Your task to perform on an android device: Open Youtube and go to "Your channel" Image 0: 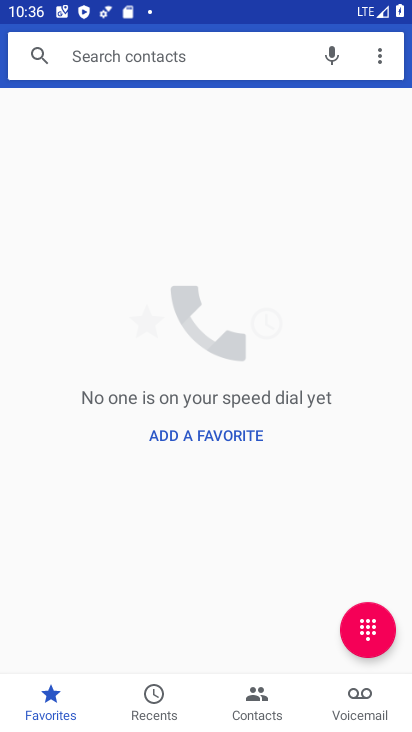
Step 0: press home button
Your task to perform on an android device: Open Youtube and go to "Your channel" Image 1: 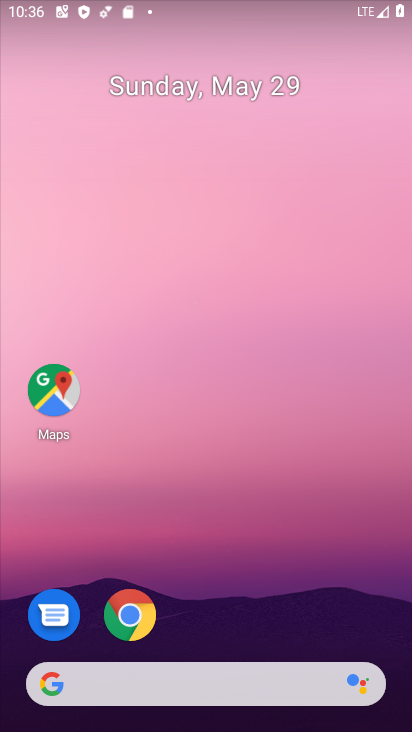
Step 1: drag from (387, 601) to (385, 250)
Your task to perform on an android device: Open Youtube and go to "Your channel" Image 2: 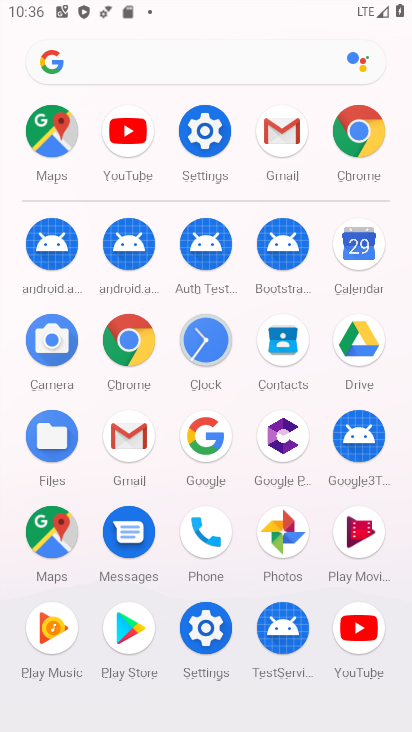
Step 2: click (356, 627)
Your task to perform on an android device: Open Youtube and go to "Your channel" Image 3: 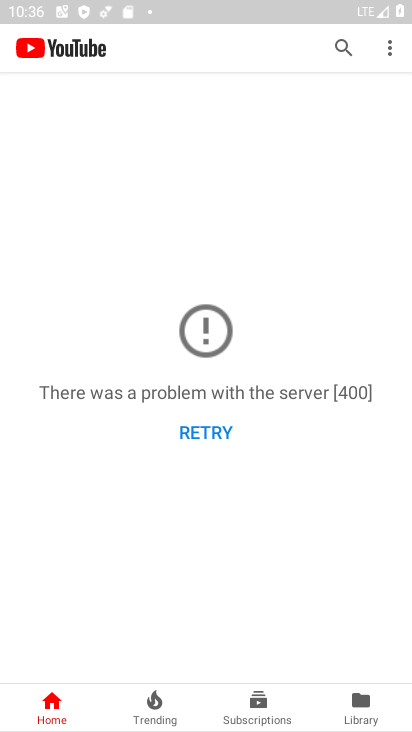
Step 3: click (388, 48)
Your task to perform on an android device: Open Youtube and go to "Your channel" Image 4: 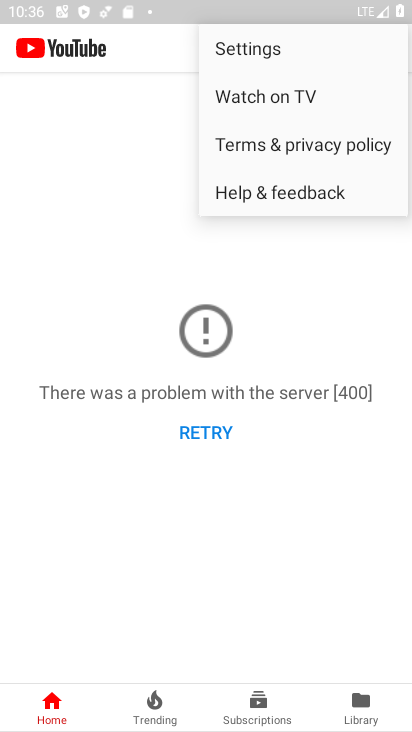
Step 4: click (257, 53)
Your task to perform on an android device: Open Youtube and go to "Your channel" Image 5: 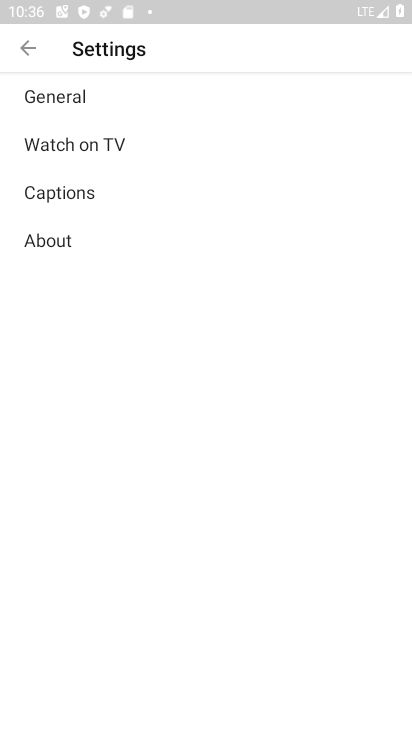
Step 5: click (33, 46)
Your task to perform on an android device: Open Youtube and go to "Your channel" Image 6: 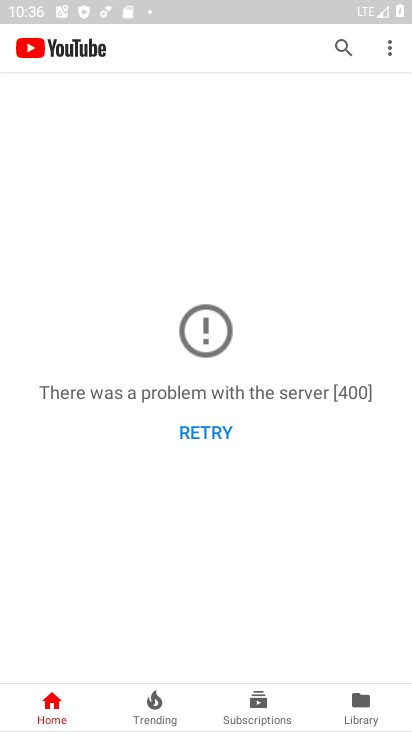
Step 6: task complete